Your task to perform on an android device: open app "Google Sheets" Image 0: 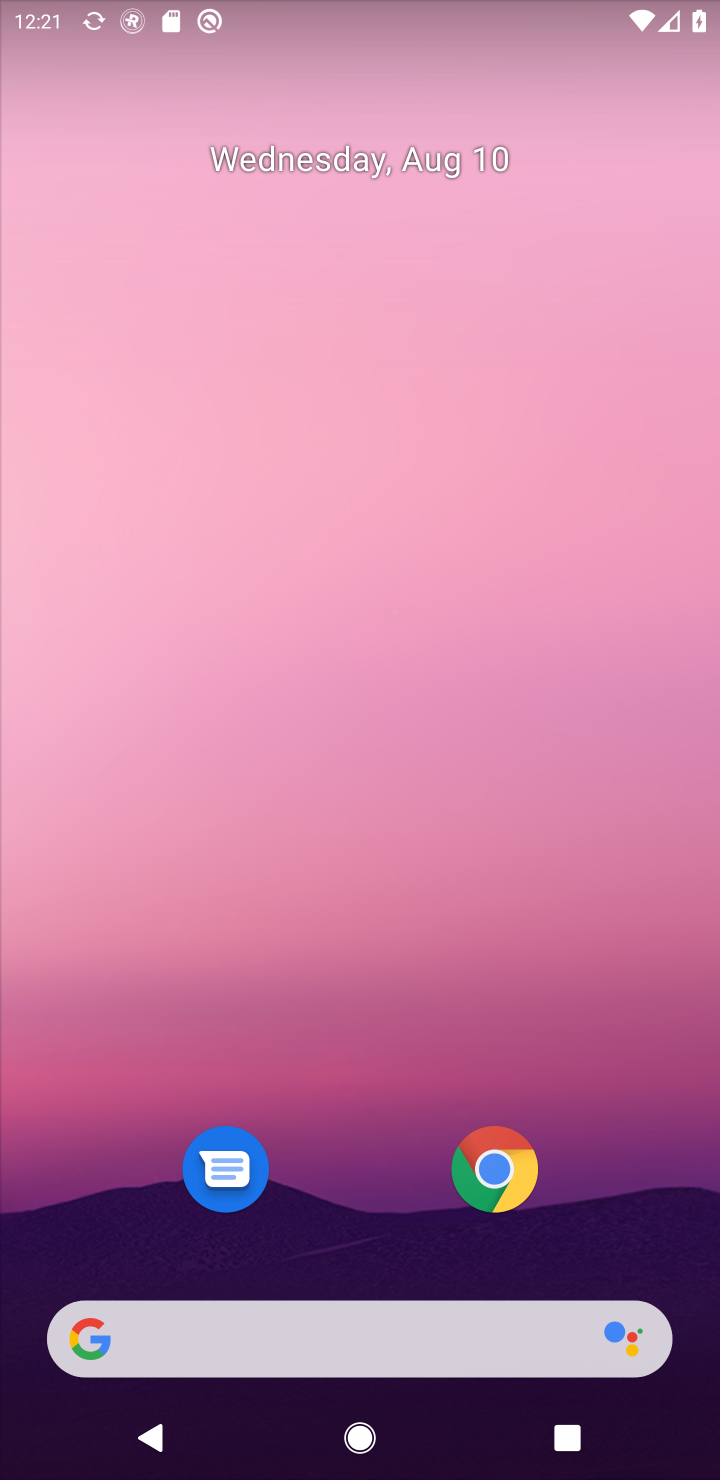
Step 0: press home button
Your task to perform on an android device: open app "Google Sheets" Image 1: 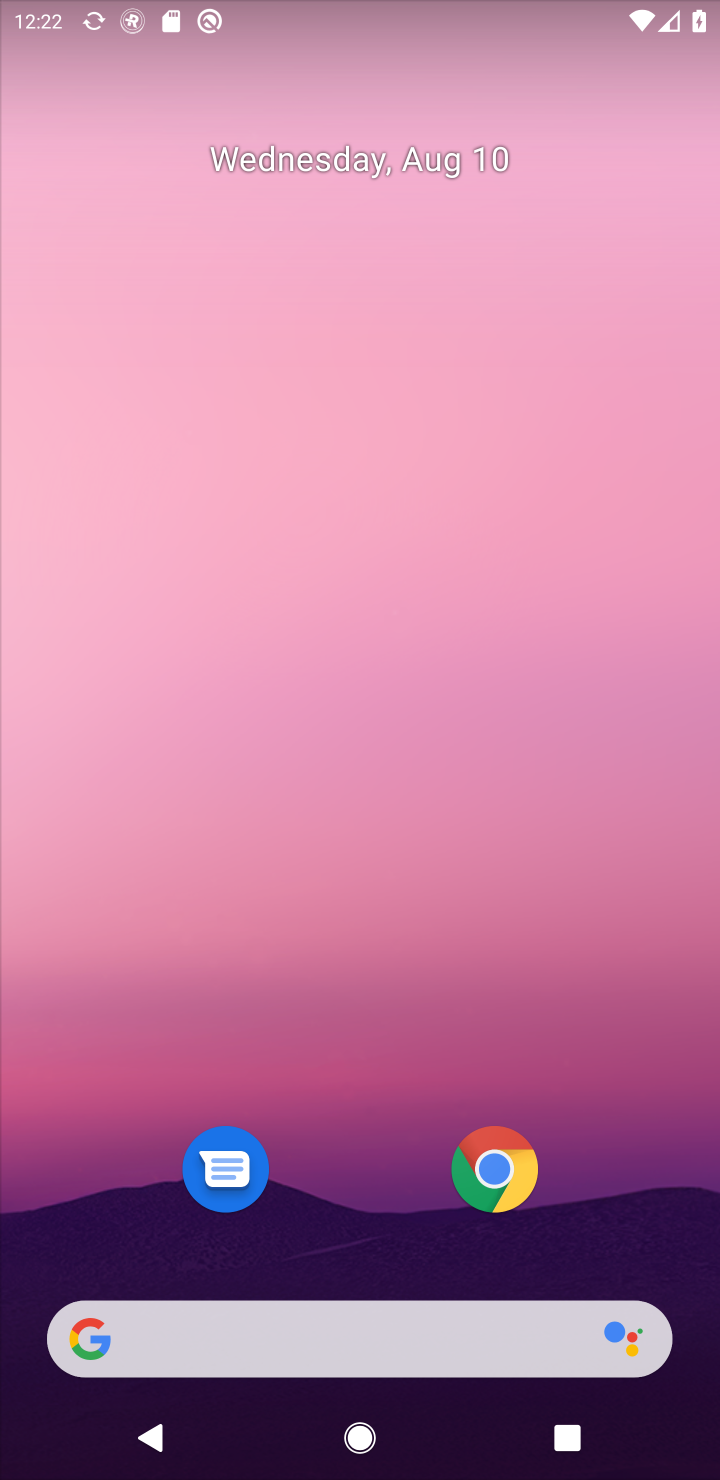
Step 1: drag from (609, 991) to (632, 162)
Your task to perform on an android device: open app "Google Sheets" Image 2: 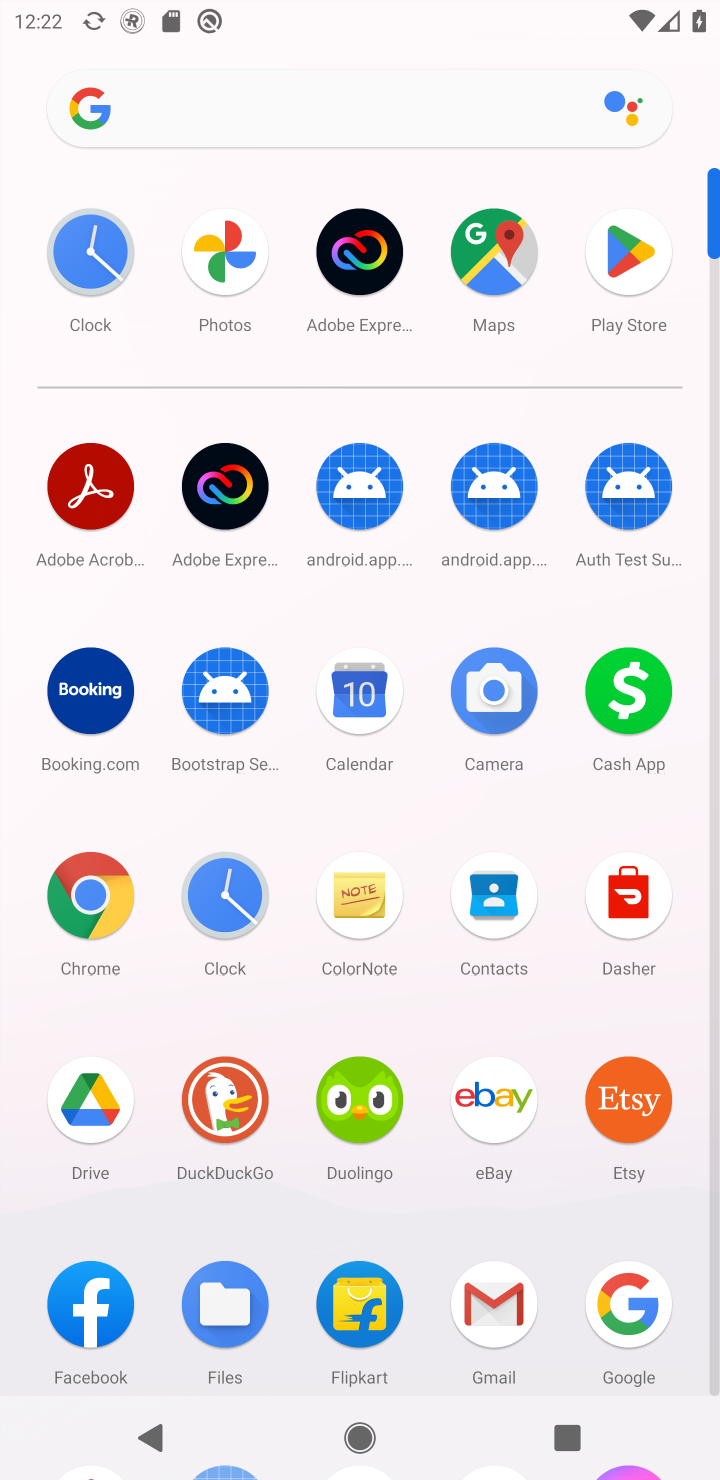
Step 2: click (634, 254)
Your task to perform on an android device: open app "Google Sheets" Image 3: 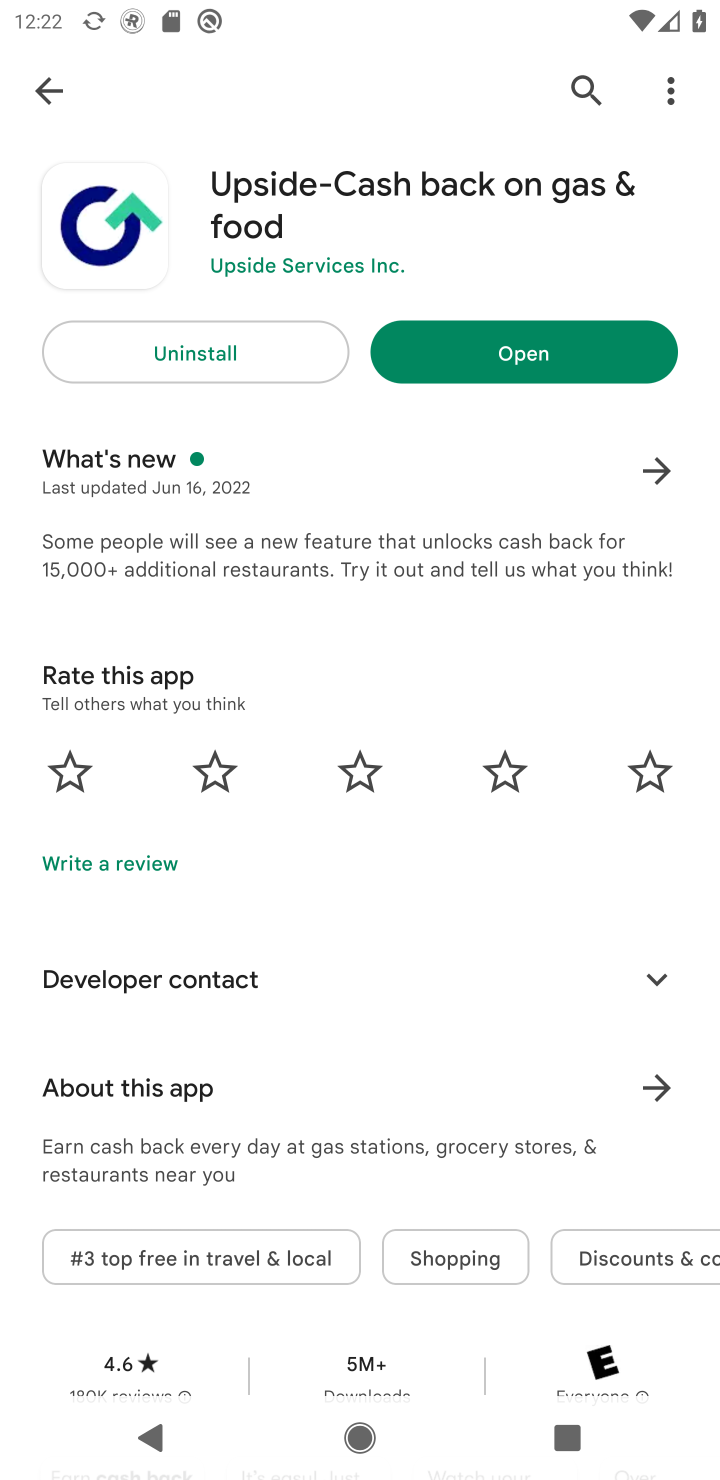
Step 3: click (563, 64)
Your task to perform on an android device: open app "Google Sheets" Image 4: 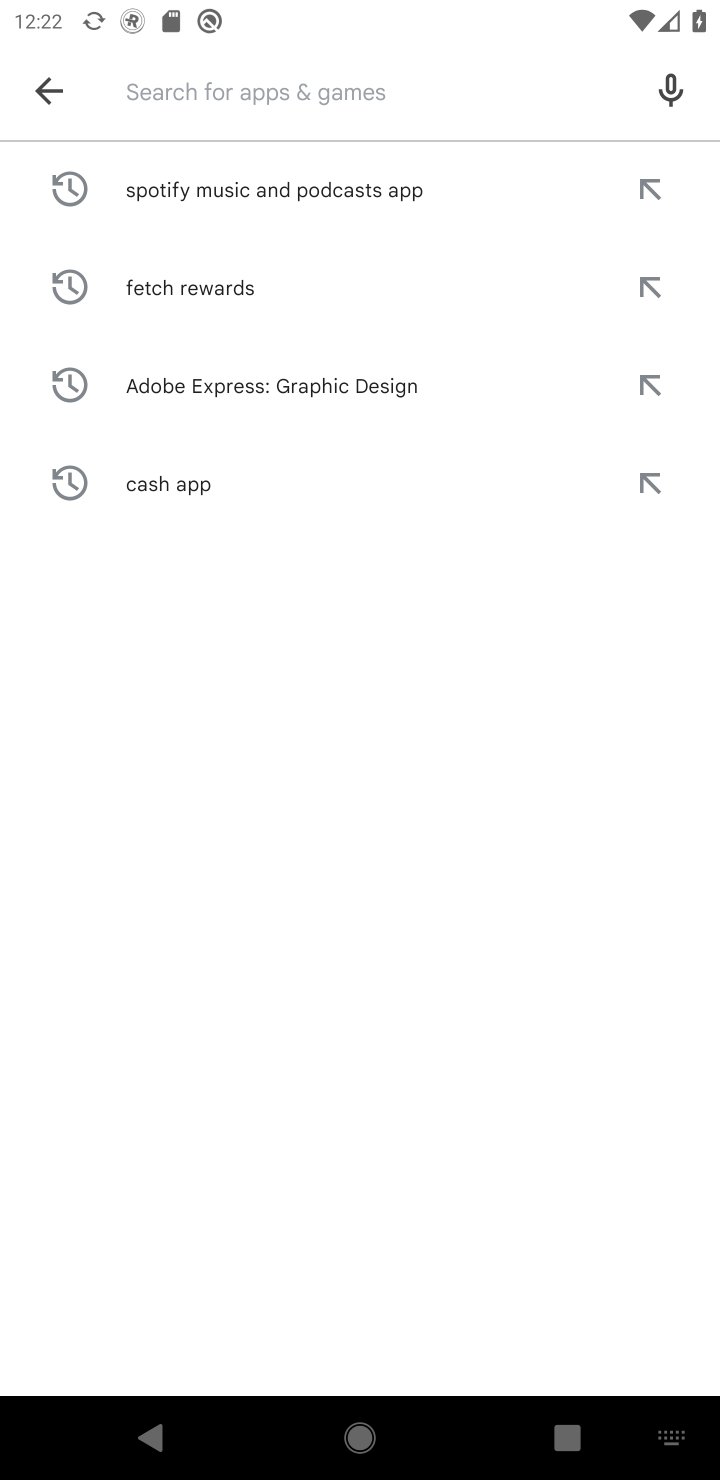
Step 4: type "Google Sheets"
Your task to perform on an android device: open app "Google Sheets" Image 5: 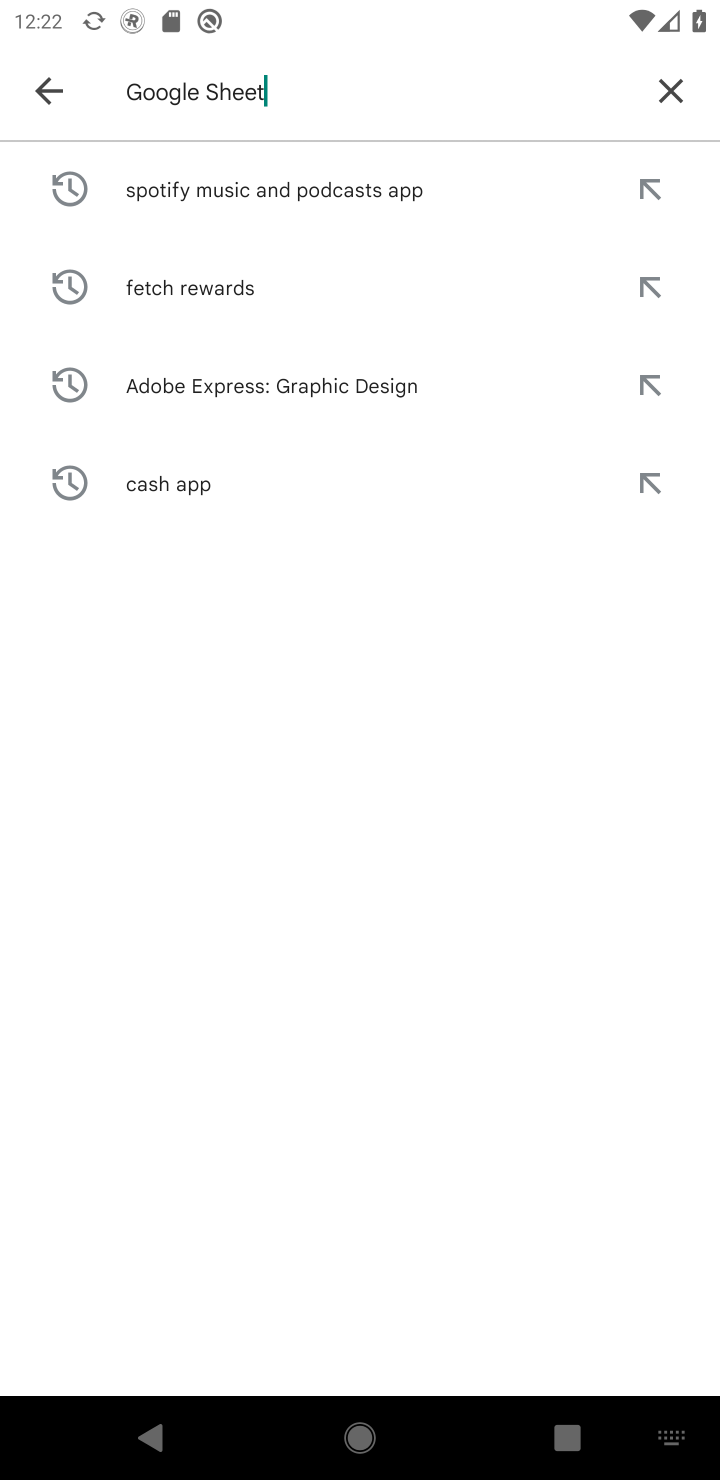
Step 5: press enter
Your task to perform on an android device: open app "Google Sheets" Image 6: 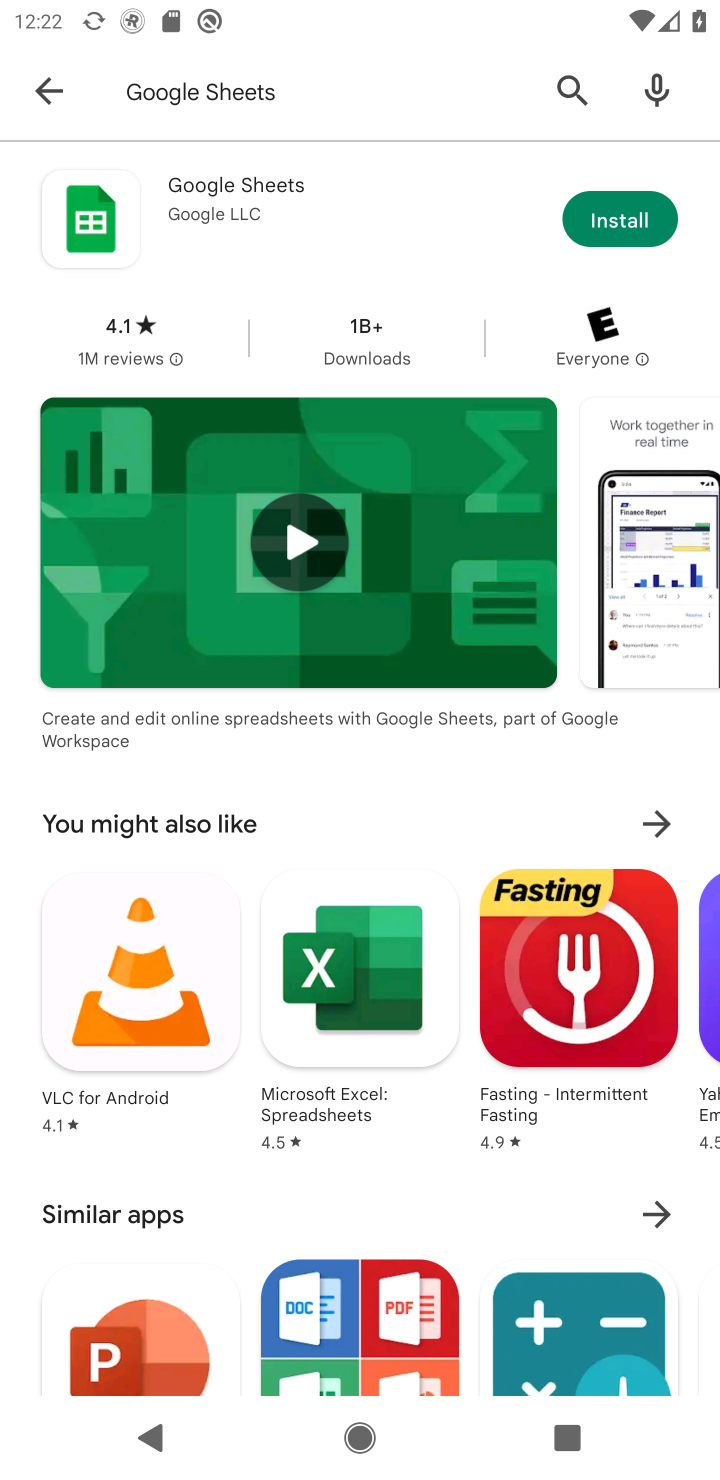
Step 6: task complete